Your task to perform on an android device: Turn off the flashlight Image 0: 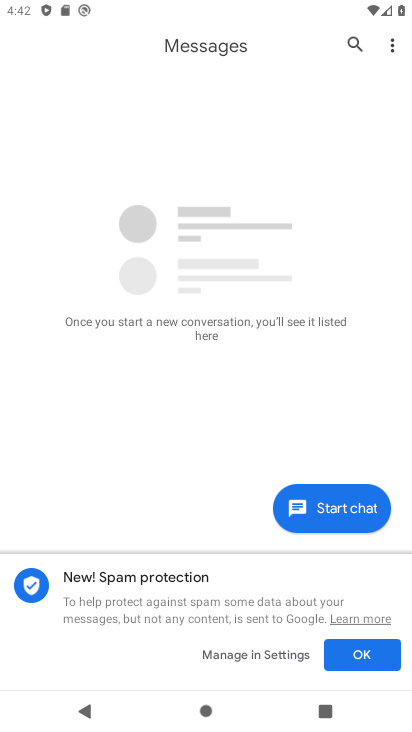
Step 0: press home button
Your task to perform on an android device: Turn off the flashlight Image 1: 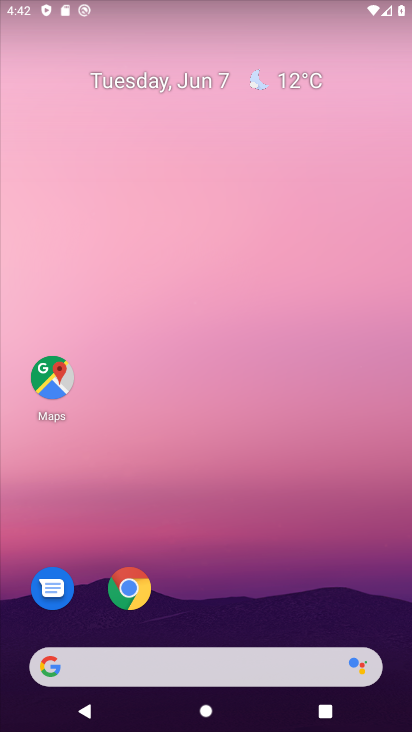
Step 1: task complete